Your task to perform on an android device: Go to Google Image 0: 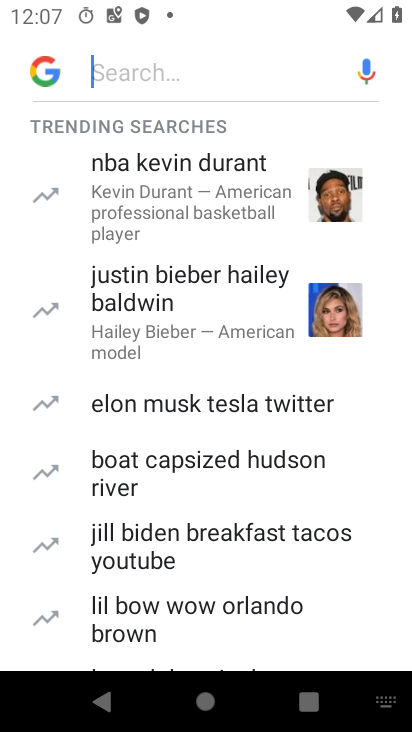
Step 0: task complete